Your task to perform on an android device: Do I have any events this weekend? Image 0: 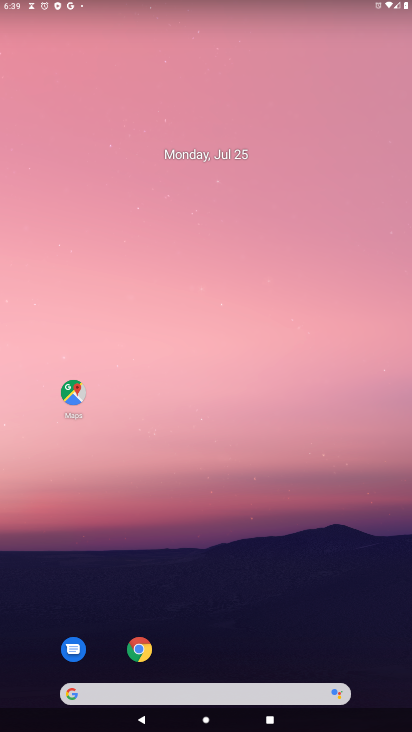
Step 0: drag from (238, 668) to (260, 87)
Your task to perform on an android device: Do I have any events this weekend? Image 1: 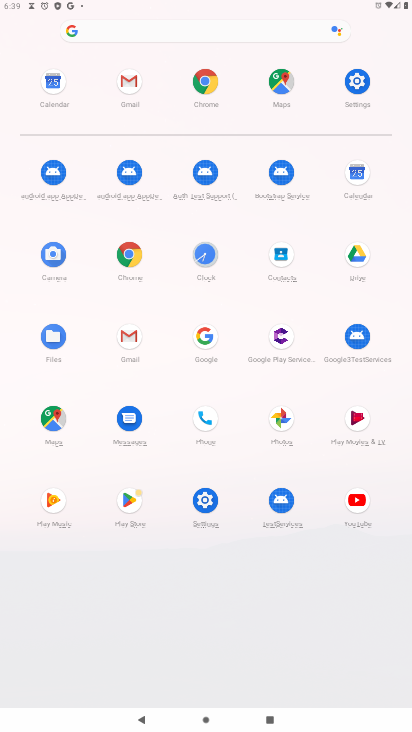
Step 1: click (356, 172)
Your task to perform on an android device: Do I have any events this weekend? Image 2: 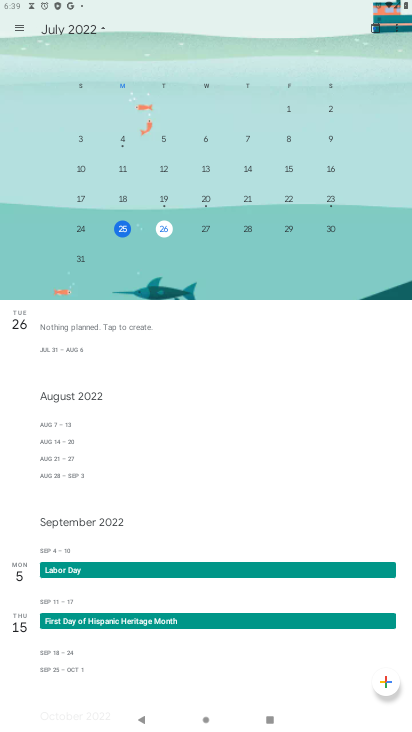
Step 2: click (326, 219)
Your task to perform on an android device: Do I have any events this weekend? Image 3: 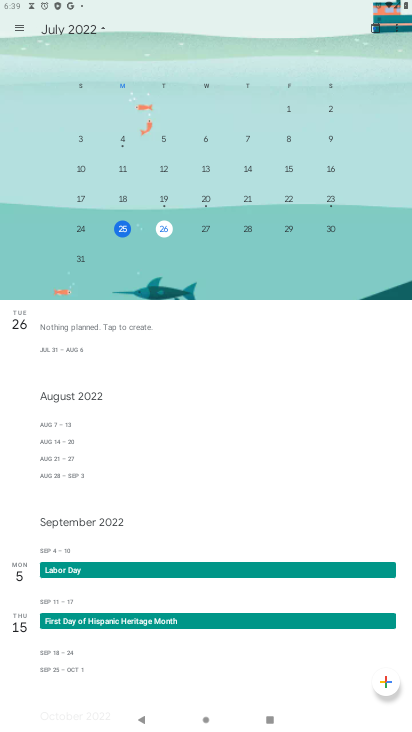
Step 3: task complete